Your task to perform on an android device: turn off improve location accuracy Image 0: 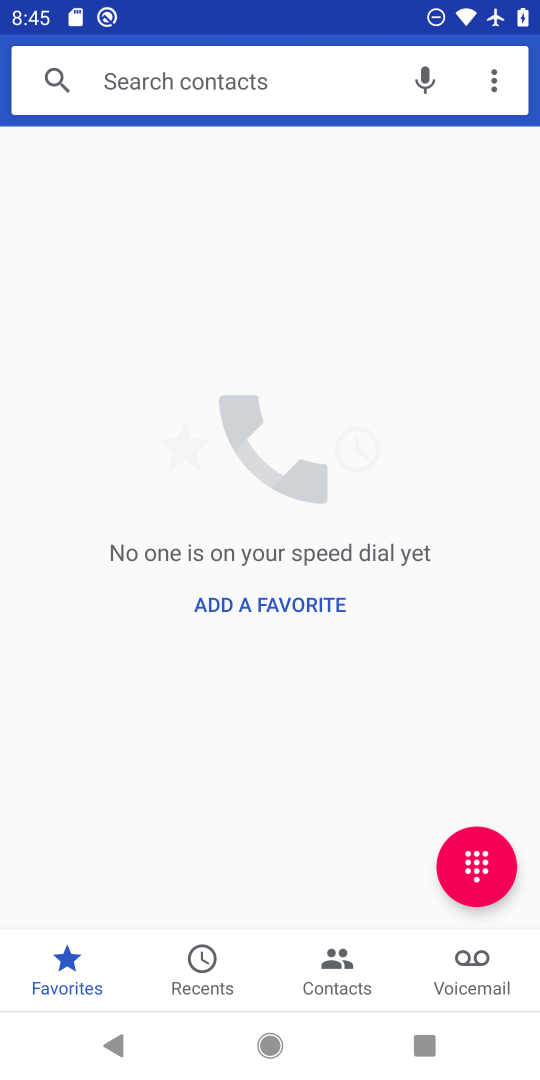
Step 0: press home button
Your task to perform on an android device: turn off improve location accuracy Image 1: 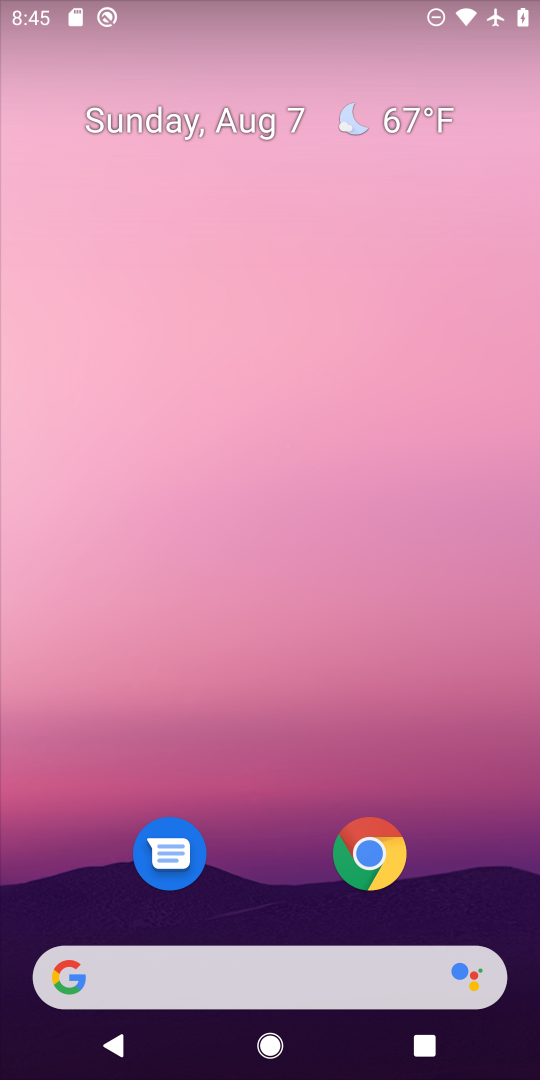
Step 1: drag from (256, 1027) to (313, 322)
Your task to perform on an android device: turn off improve location accuracy Image 2: 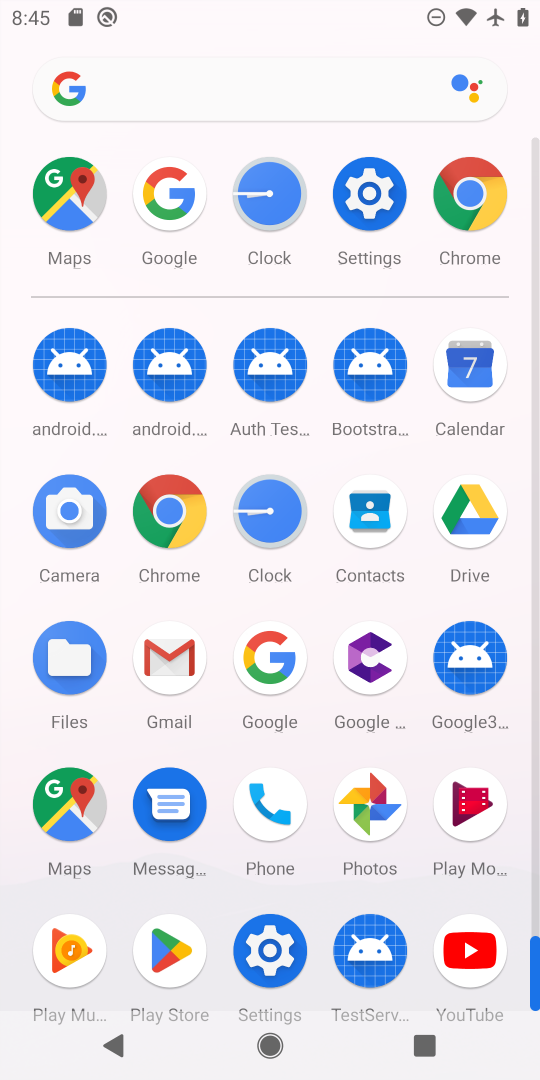
Step 2: click (365, 192)
Your task to perform on an android device: turn off improve location accuracy Image 3: 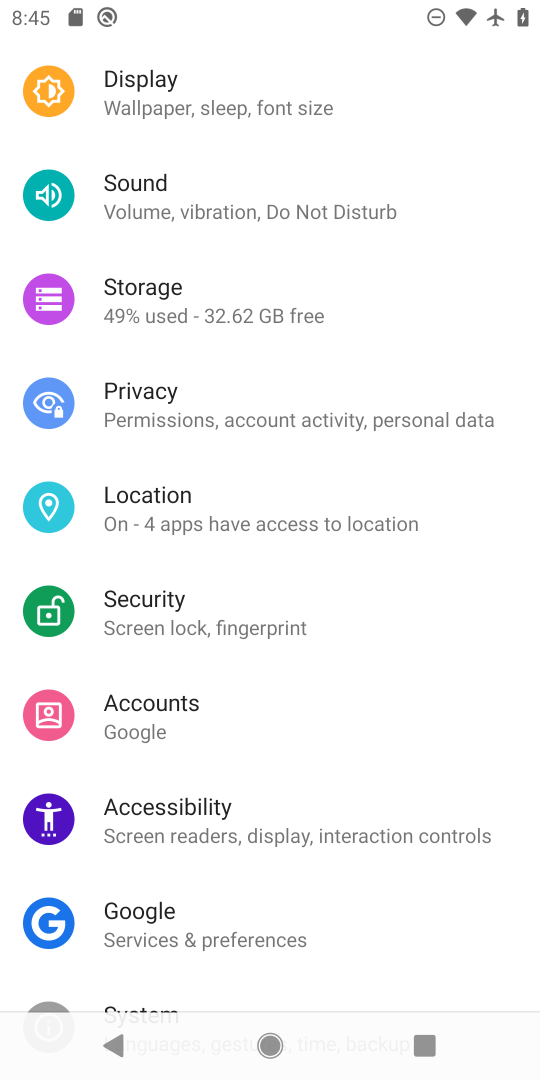
Step 3: click (247, 526)
Your task to perform on an android device: turn off improve location accuracy Image 4: 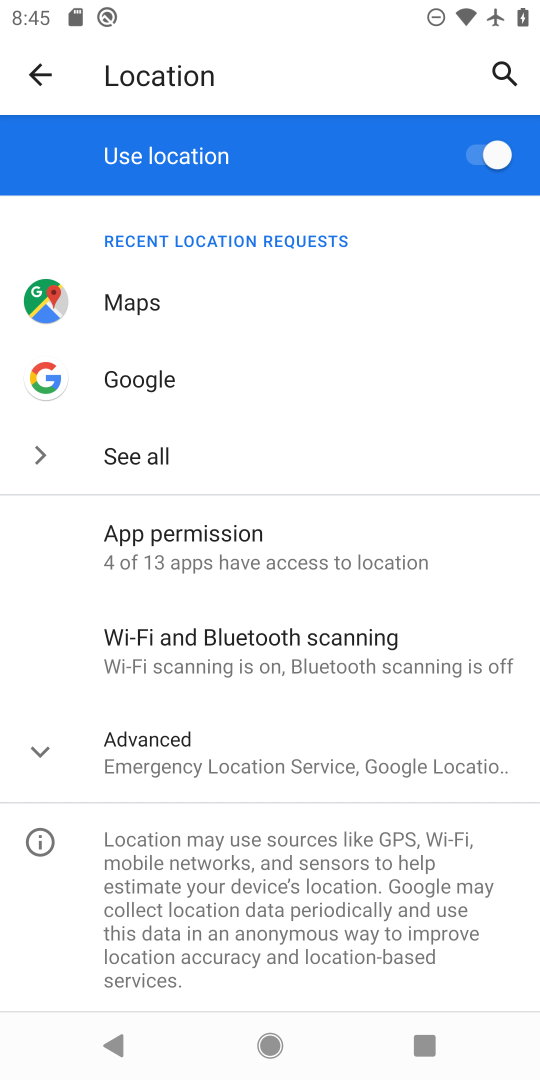
Step 4: click (264, 774)
Your task to perform on an android device: turn off improve location accuracy Image 5: 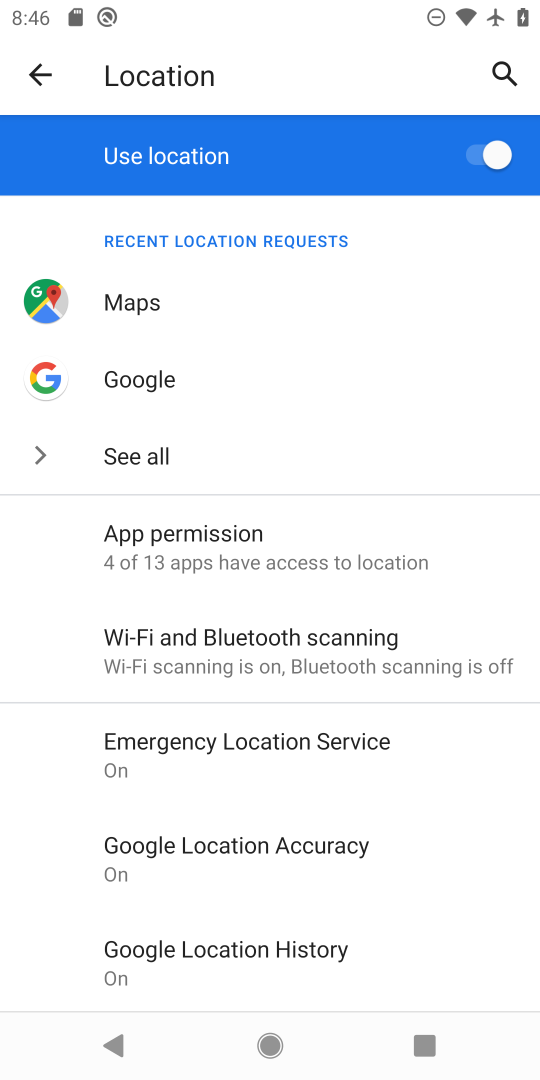
Step 5: click (253, 856)
Your task to perform on an android device: turn off improve location accuracy Image 6: 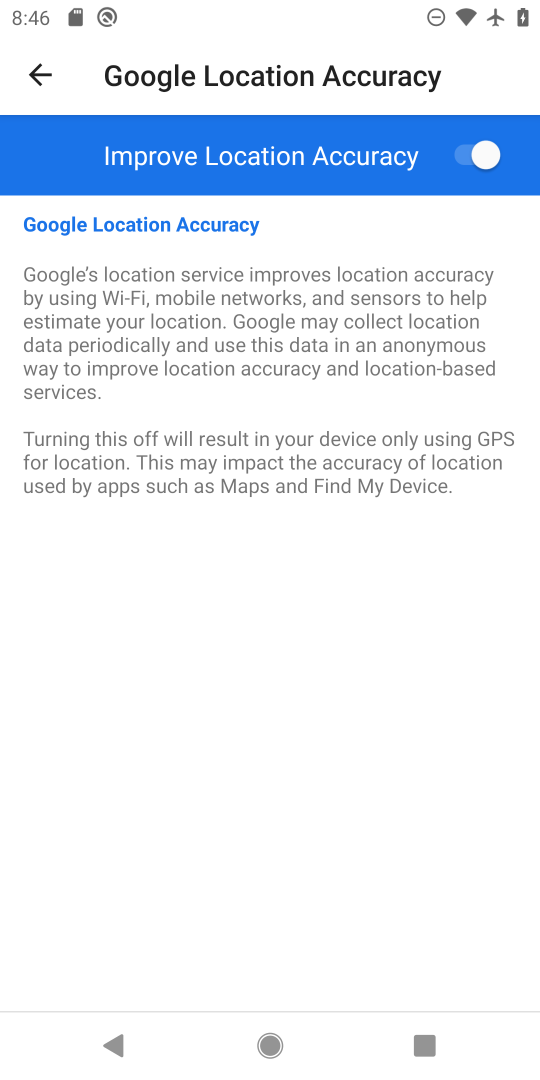
Step 6: click (448, 148)
Your task to perform on an android device: turn off improve location accuracy Image 7: 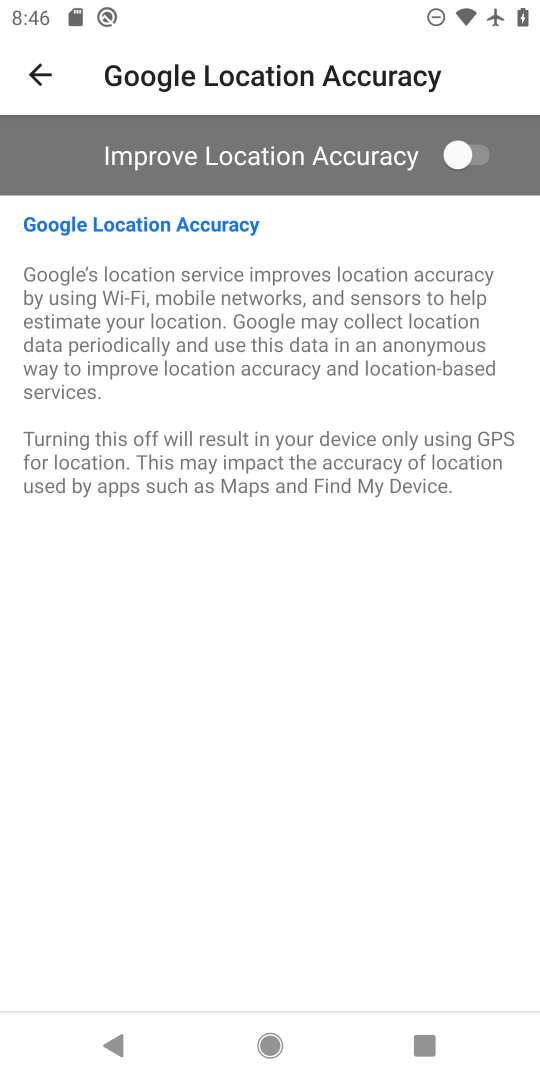
Step 7: task complete